Your task to perform on an android device: toggle javascript in the chrome app Image 0: 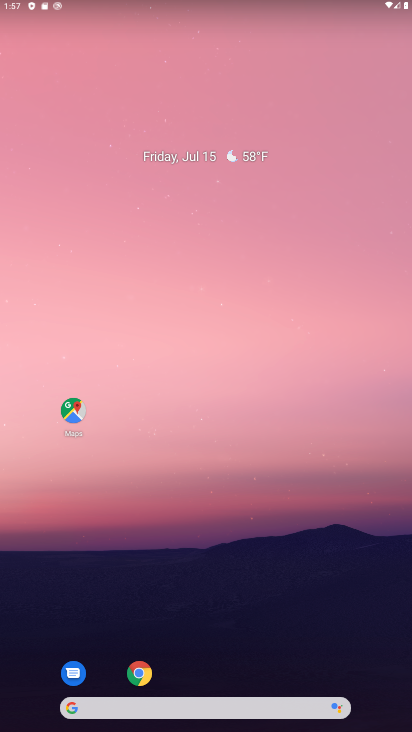
Step 0: click (137, 671)
Your task to perform on an android device: toggle javascript in the chrome app Image 1: 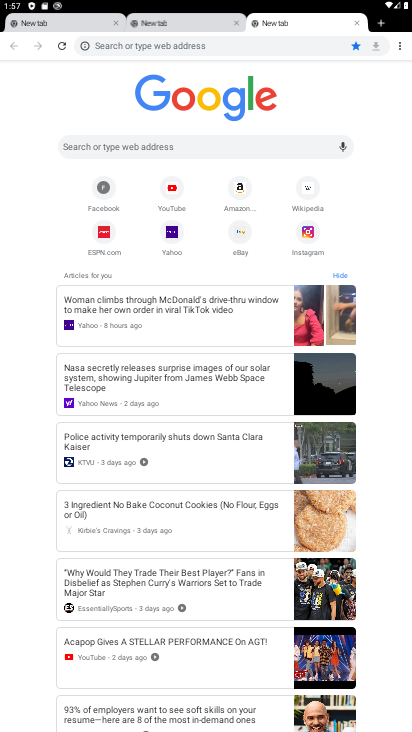
Step 1: click (396, 48)
Your task to perform on an android device: toggle javascript in the chrome app Image 2: 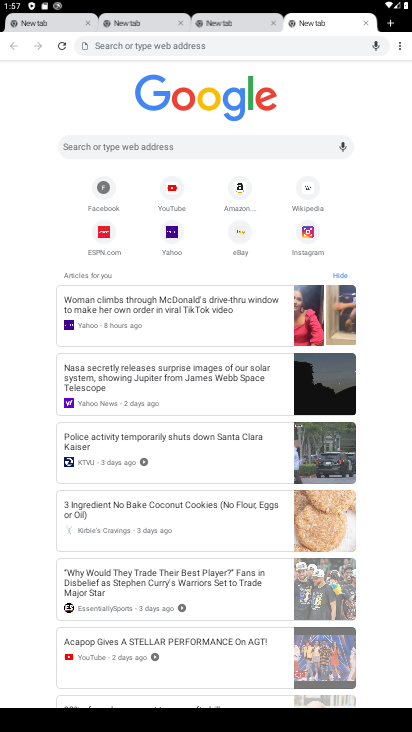
Step 2: click (398, 40)
Your task to perform on an android device: toggle javascript in the chrome app Image 3: 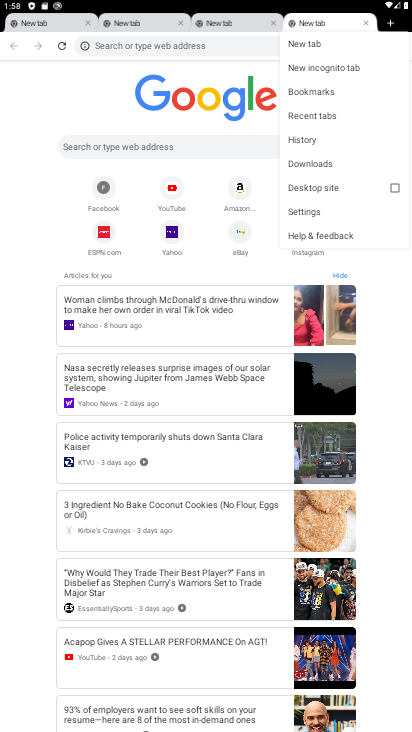
Step 3: click (308, 211)
Your task to perform on an android device: toggle javascript in the chrome app Image 4: 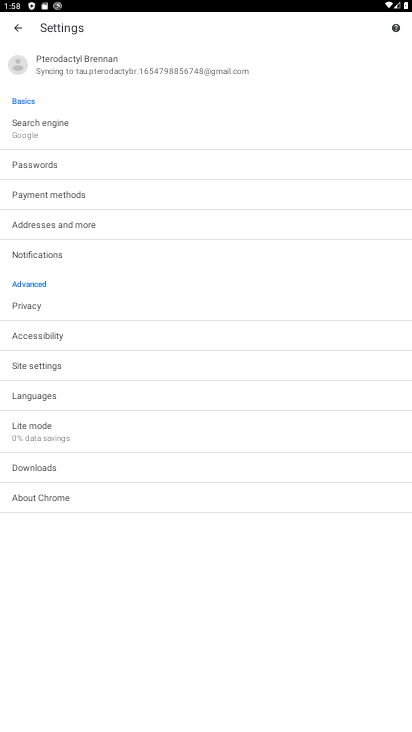
Step 4: click (51, 364)
Your task to perform on an android device: toggle javascript in the chrome app Image 5: 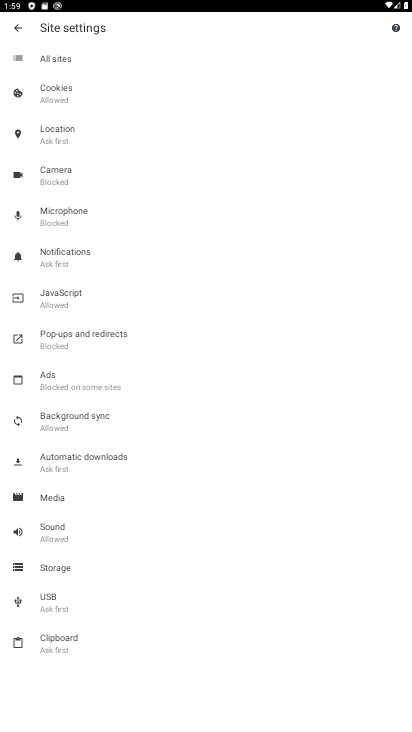
Step 5: click (57, 298)
Your task to perform on an android device: toggle javascript in the chrome app Image 6: 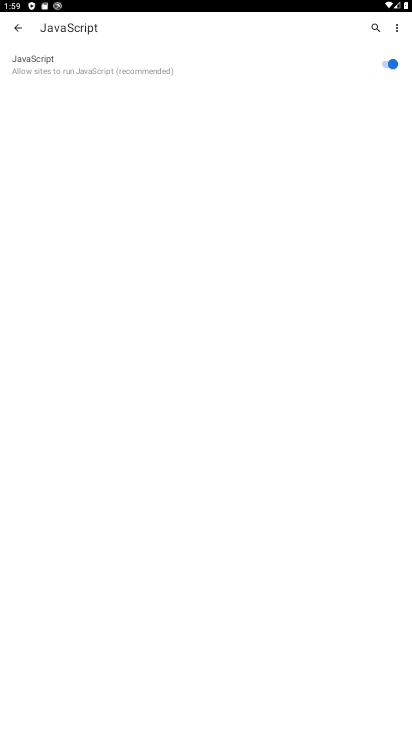
Step 6: click (388, 62)
Your task to perform on an android device: toggle javascript in the chrome app Image 7: 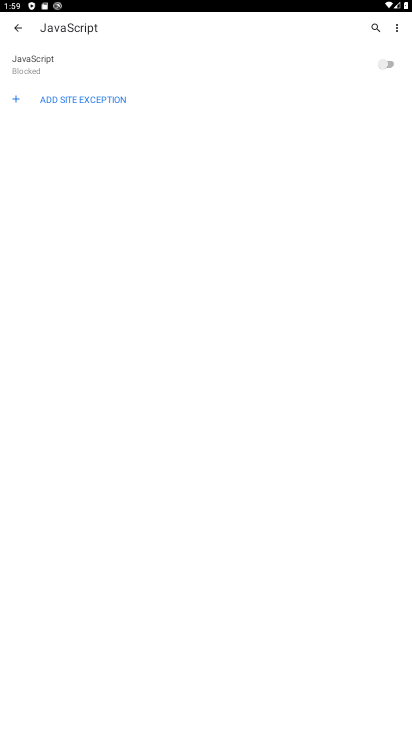
Step 7: task complete